Your task to perform on an android device: toggle improve location accuracy Image 0: 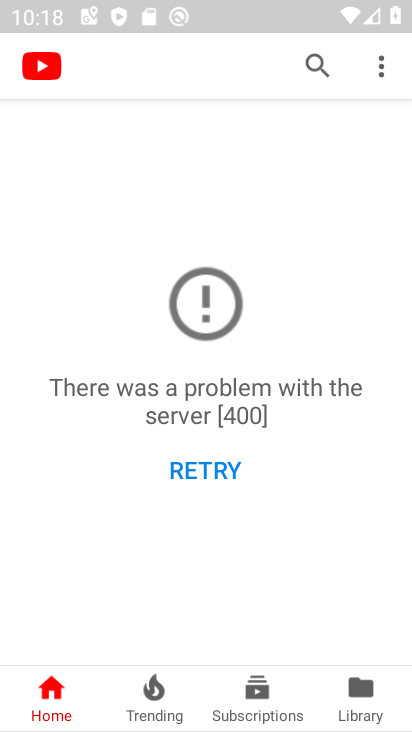
Step 0: press back button
Your task to perform on an android device: toggle improve location accuracy Image 1: 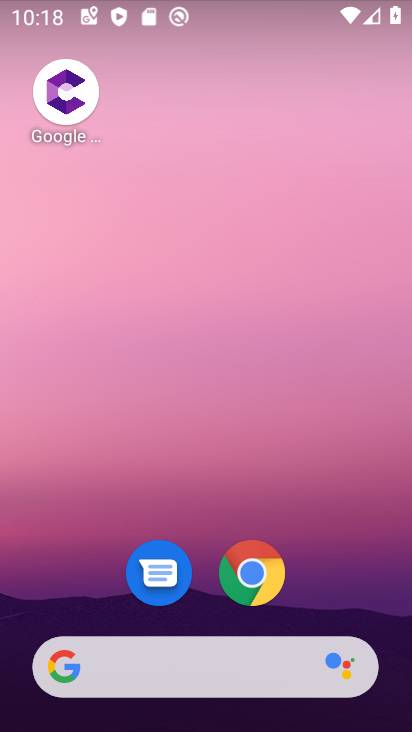
Step 1: drag from (166, 630) to (276, 221)
Your task to perform on an android device: toggle improve location accuracy Image 2: 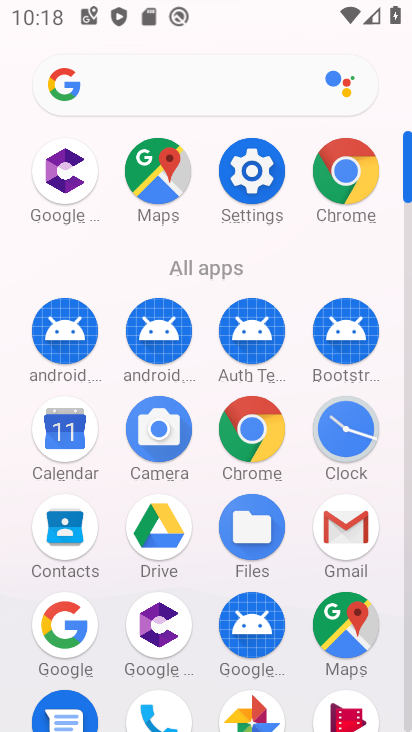
Step 2: click (244, 171)
Your task to perform on an android device: toggle improve location accuracy Image 3: 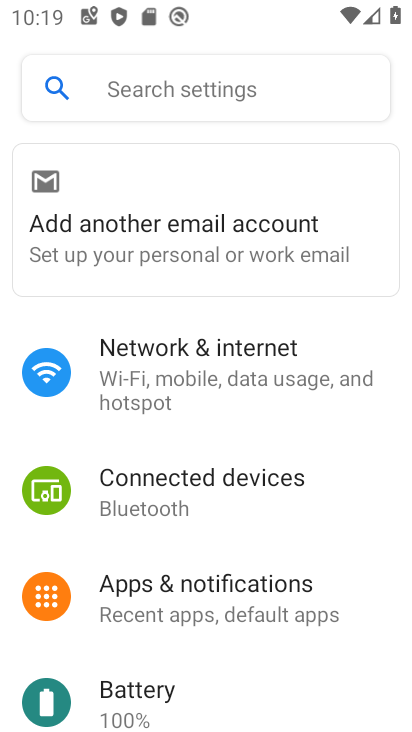
Step 3: drag from (160, 707) to (297, 216)
Your task to perform on an android device: toggle improve location accuracy Image 4: 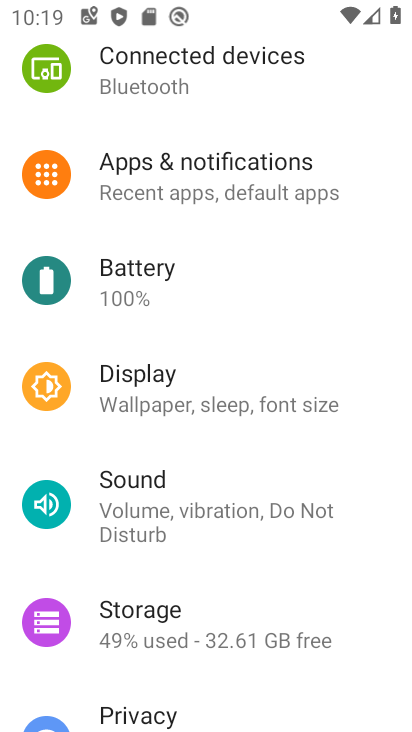
Step 4: drag from (181, 622) to (255, 86)
Your task to perform on an android device: toggle improve location accuracy Image 5: 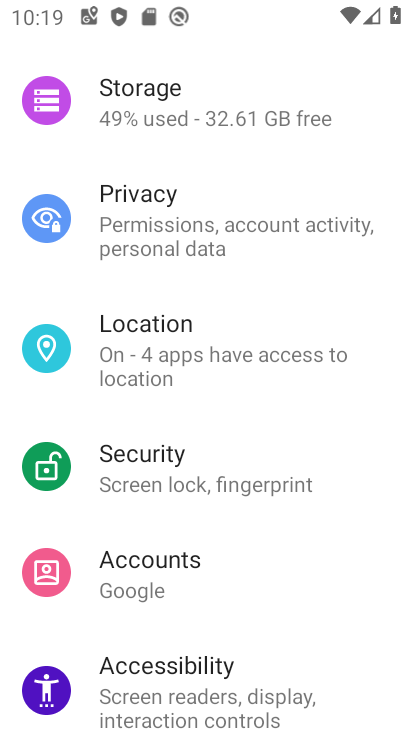
Step 5: click (175, 354)
Your task to perform on an android device: toggle improve location accuracy Image 6: 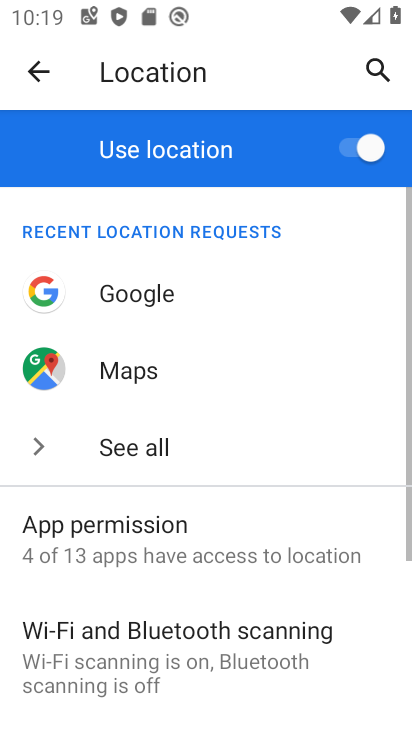
Step 6: drag from (128, 677) to (224, 243)
Your task to perform on an android device: toggle improve location accuracy Image 7: 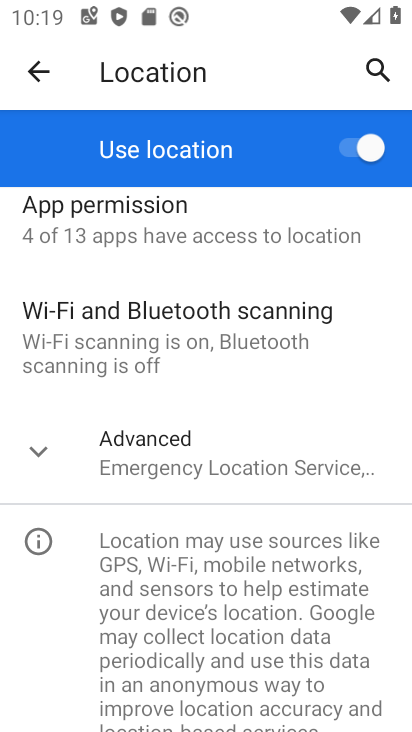
Step 7: click (169, 451)
Your task to perform on an android device: toggle improve location accuracy Image 8: 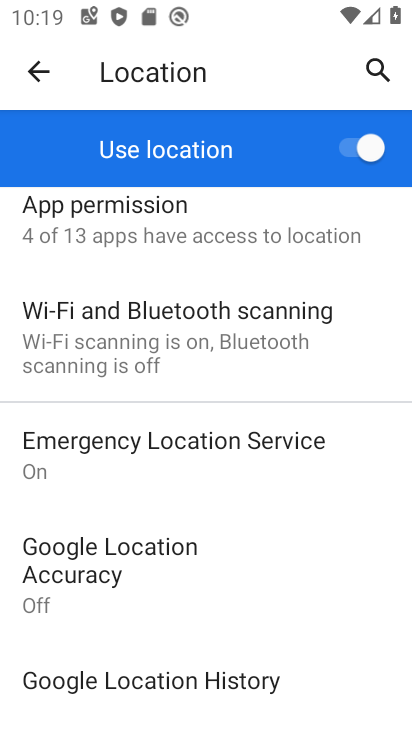
Step 8: click (82, 585)
Your task to perform on an android device: toggle improve location accuracy Image 9: 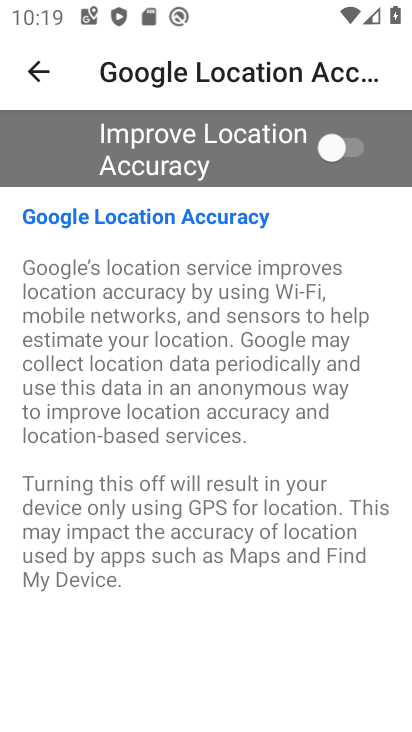
Step 9: click (355, 140)
Your task to perform on an android device: toggle improve location accuracy Image 10: 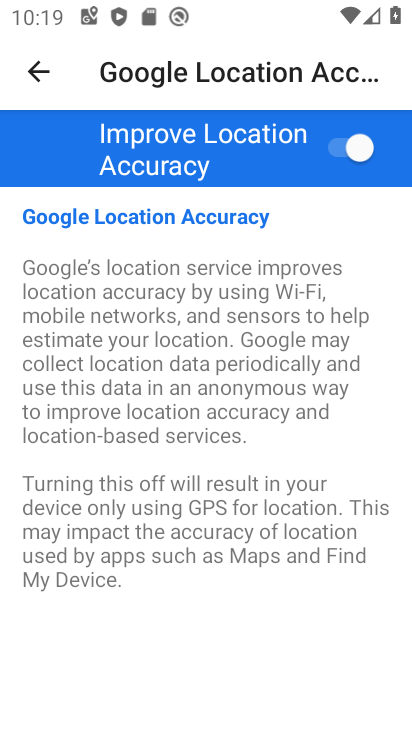
Step 10: task complete